Your task to perform on an android device: Open Youtube and go to "Your channel" Image 0: 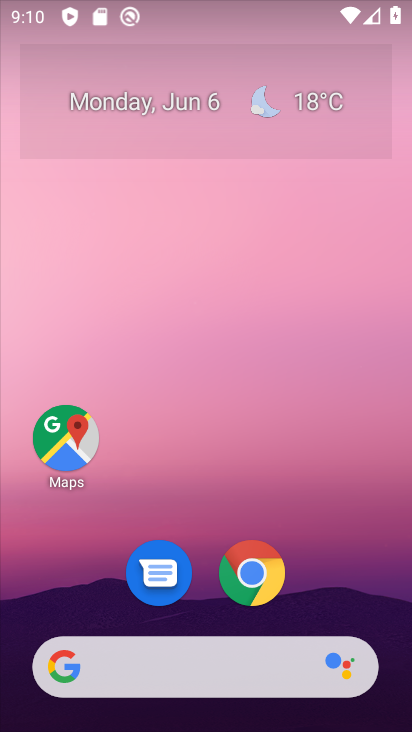
Step 0: drag from (201, 552) to (279, 36)
Your task to perform on an android device: Open Youtube and go to "Your channel" Image 1: 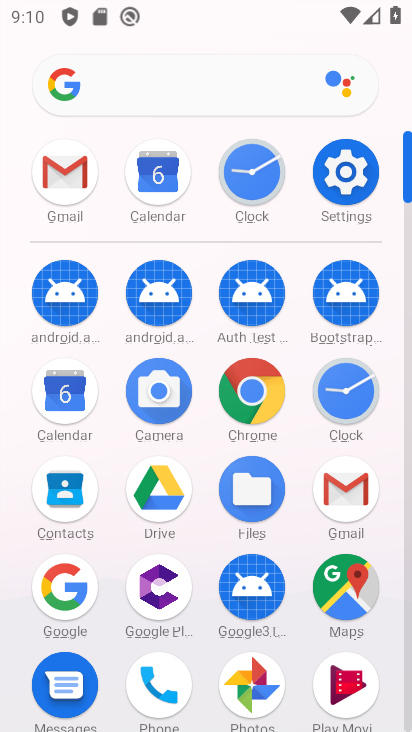
Step 1: drag from (186, 672) to (345, 93)
Your task to perform on an android device: Open Youtube and go to "Your channel" Image 2: 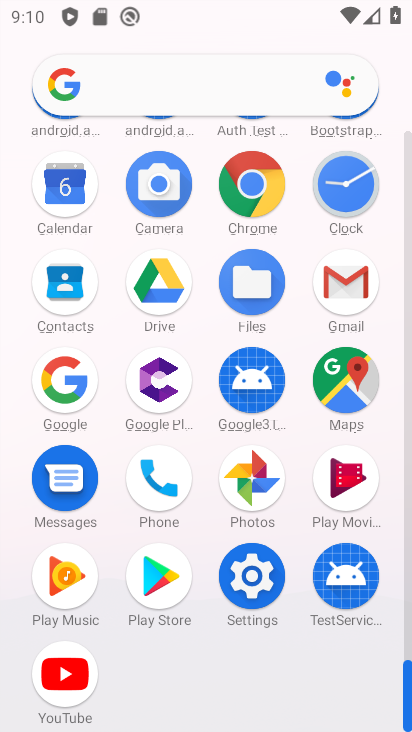
Step 2: click (60, 675)
Your task to perform on an android device: Open Youtube and go to "Your channel" Image 3: 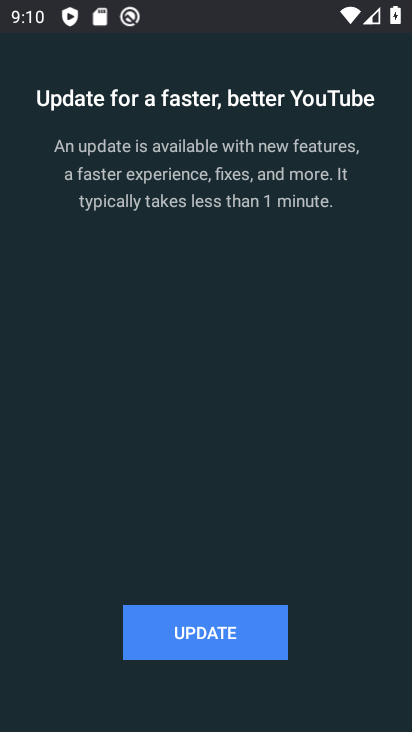
Step 3: click (193, 638)
Your task to perform on an android device: Open Youtube and go to "Your channel" Image 4: 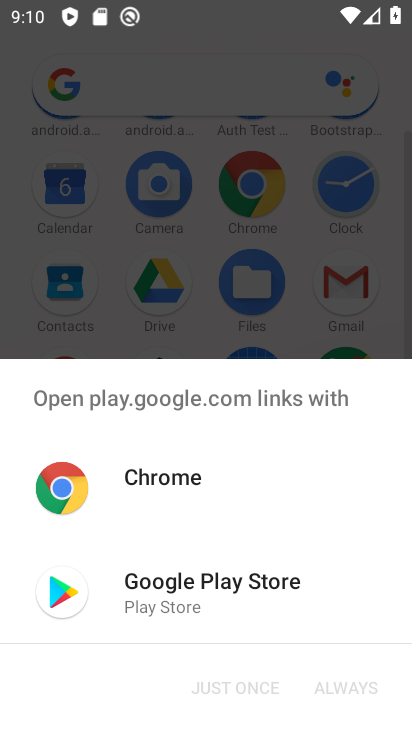
Step 4: click (216, 610)
Your task to perform on an android device: Open Youtube and go to "Your channel" Image 5: 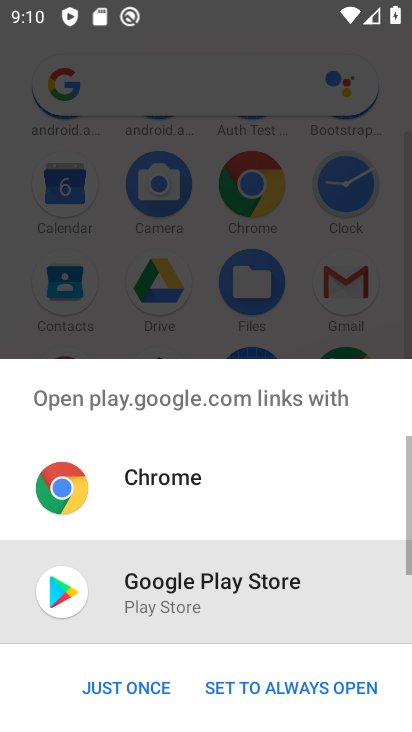
Step 5: click (112, 698)
Your task to perform on an android device: Open Youtube and go to "Your channel" Image 6: 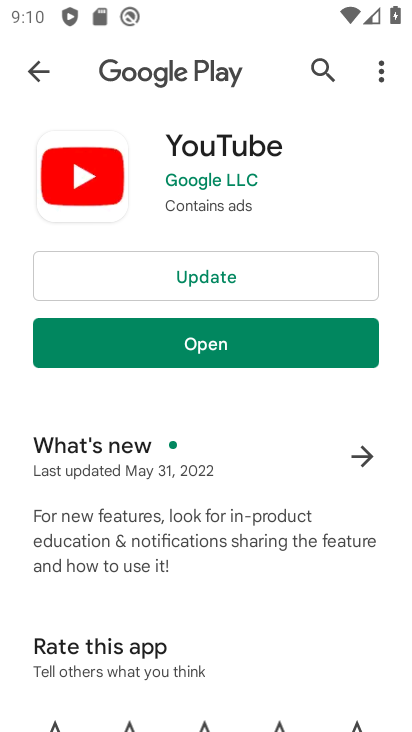
Step 6: click (201, 272)
Your task to perform on an android device: Open Youtube and go to "Your channel" Image 7: 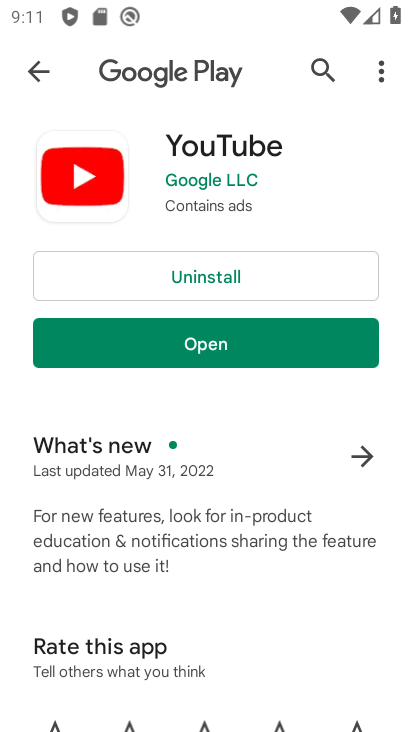
Step 7: click (220, 349)
Your task to perform on an android device: Open Youtube and go to "Your channel" Image 8: 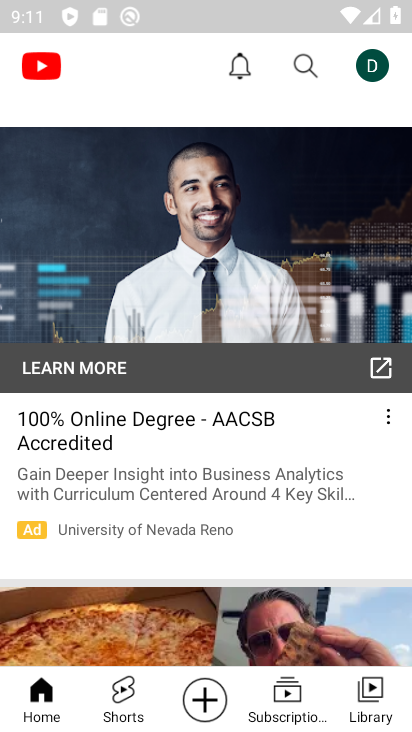
Step 8: click (385, 67)
Your task to perform on an android device: Open Youtube and go to "Your channel" Image 9: 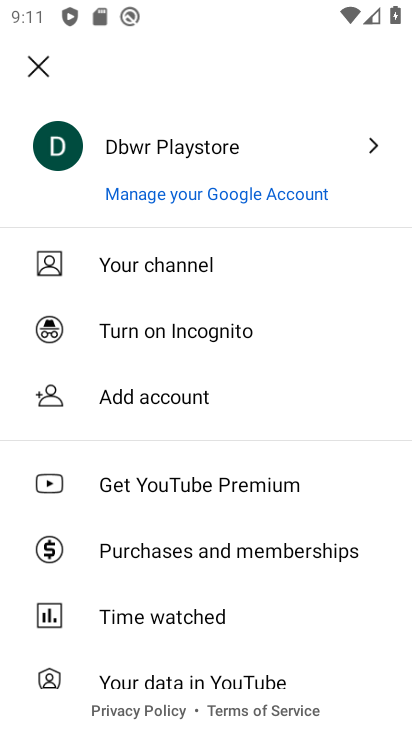
Step 9: click (173, 256)
Your task to perform on an android device: Open Youtube and go to "Your channel" Image 10: 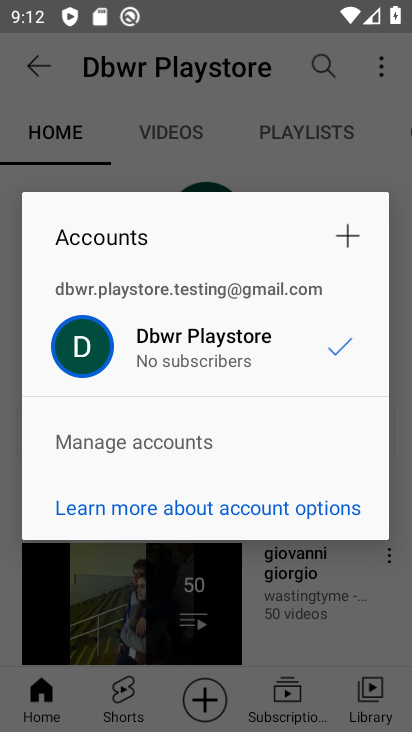
Step 10: task complete